Your task to perform on an android device: turn on wifi Image 0: 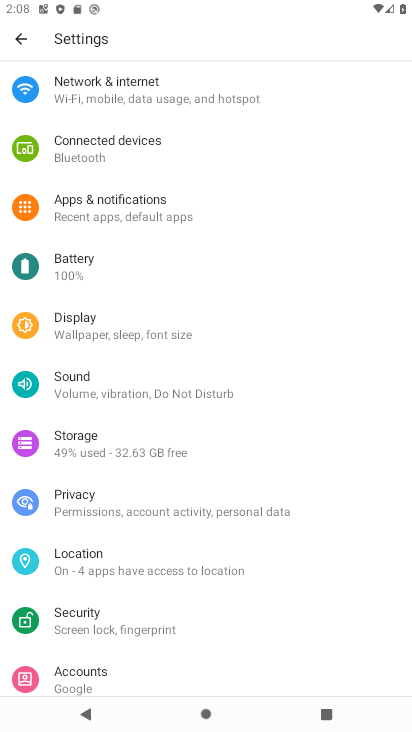
Step 0: click (173, 85)
Your task to perform on an android device: turn on wifi Image 1: 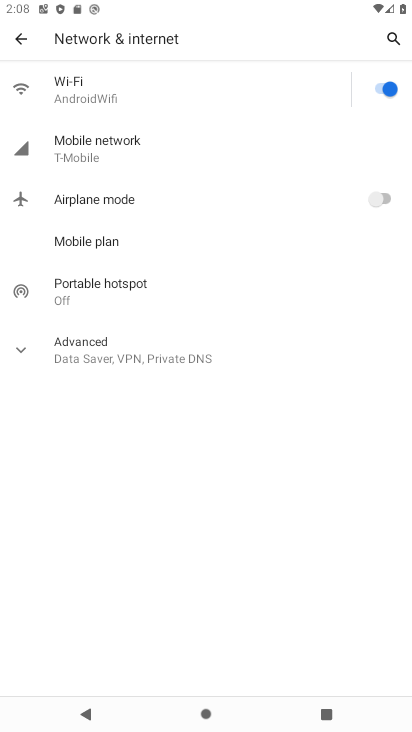
Step 1: click (150, 94)
Your task to perform on an android device: turn on wifi Image 2: 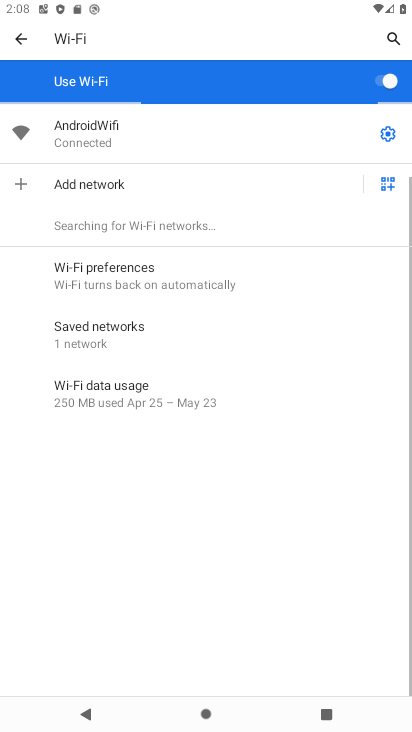
Step 2: task complete